Your task to perform on an android device: open app "Adobe Acrobat Reader: Edit PDF" (install if not already installed), go to login, and select forgot password Image 0: 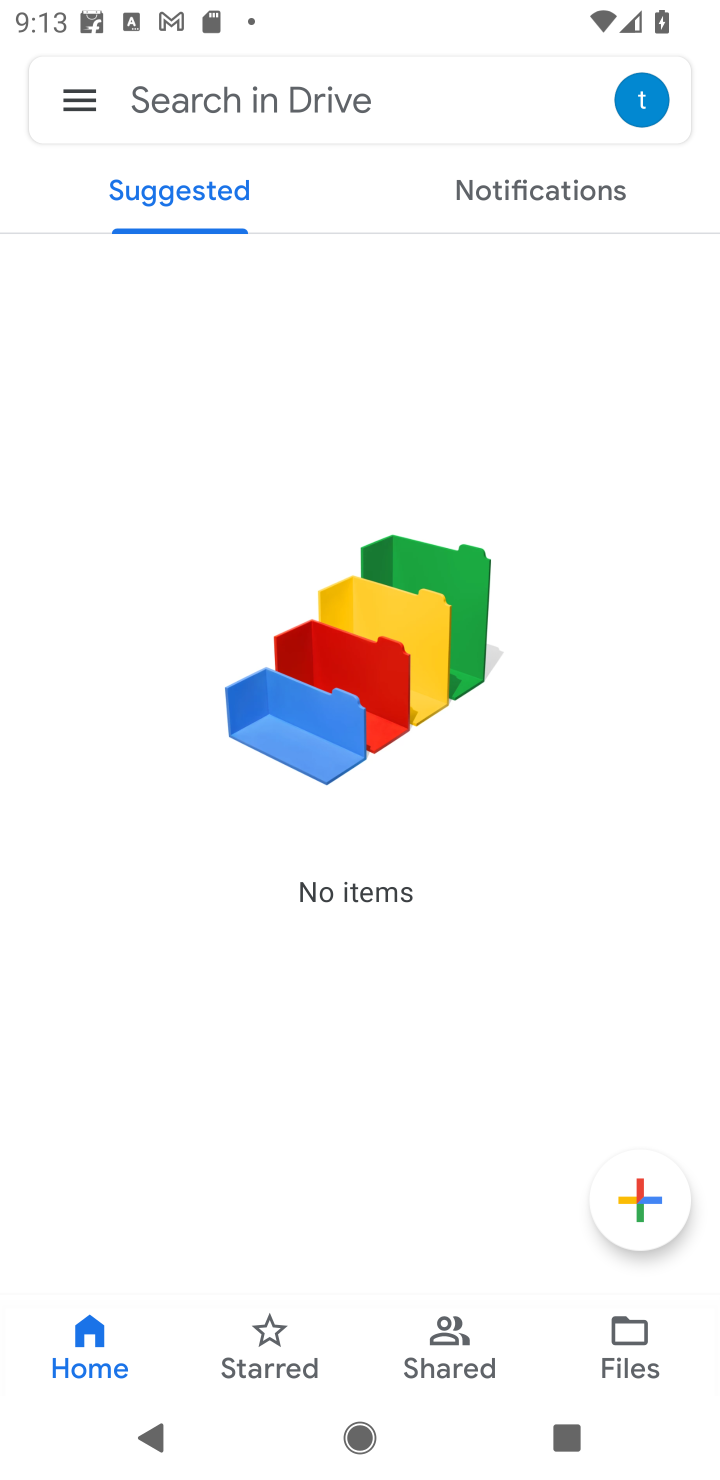
Step 0: press home button
Your task to perform on an android device: open app "Adobe Acrobat Reader: Edit PDF" (install if not already installed), go to login, and select forgot password Image 1: 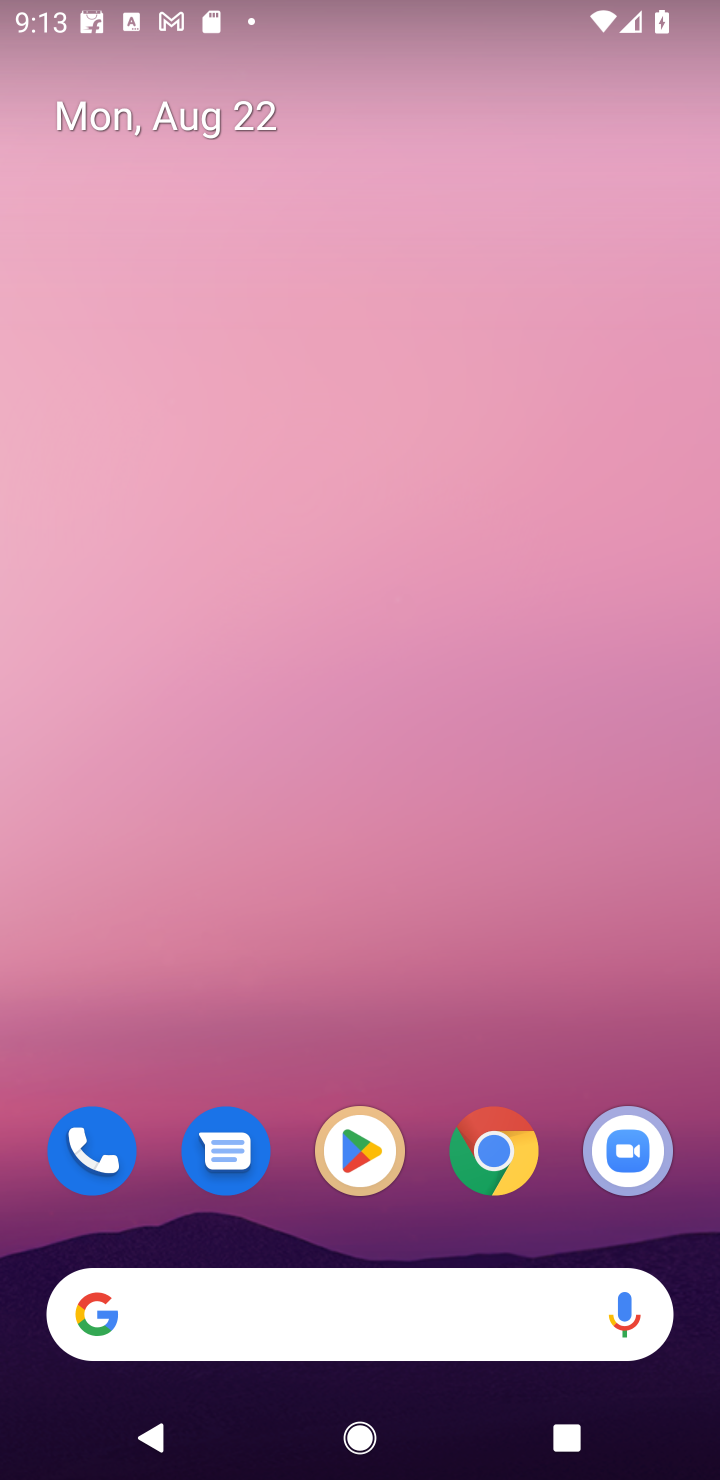
Step 1: click (366, 1155)
Your task to perform on an android device: open app "Adobe Acrobat Reader: Edit PDF" (install if not already installed), go to login, and select forgot password Image 2: 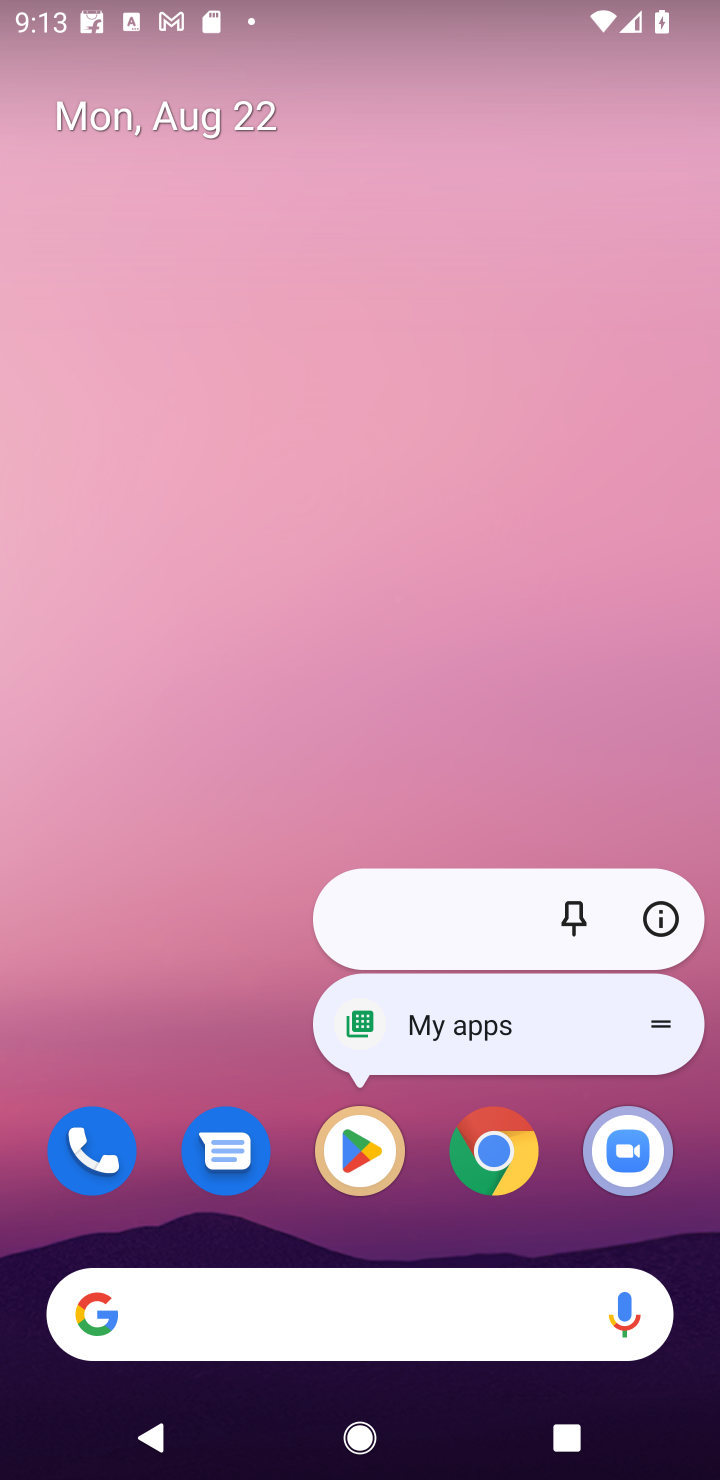
Step 2: click (366, 1157)
Your task to perform on an android device: open app "Adobe Acrobat Reader: Edit PDF" (install if not already installed), go to login, and select forgot password Image 3: 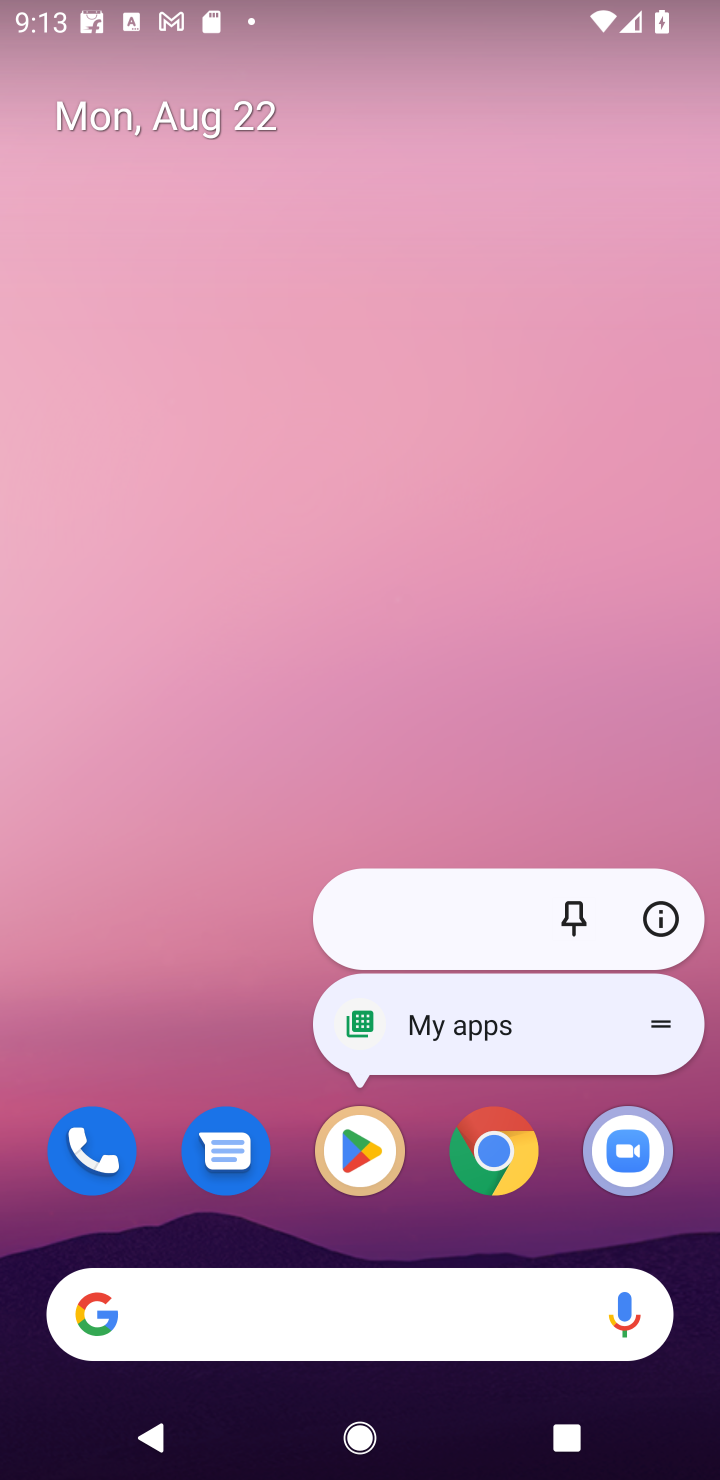
Step 3: click (362, 1148)
Your task to perform on an android device: open app "Adobe Acrobat Reader: Edit PDF" (install if not already installed), go to login, and select forgot password Image 4: 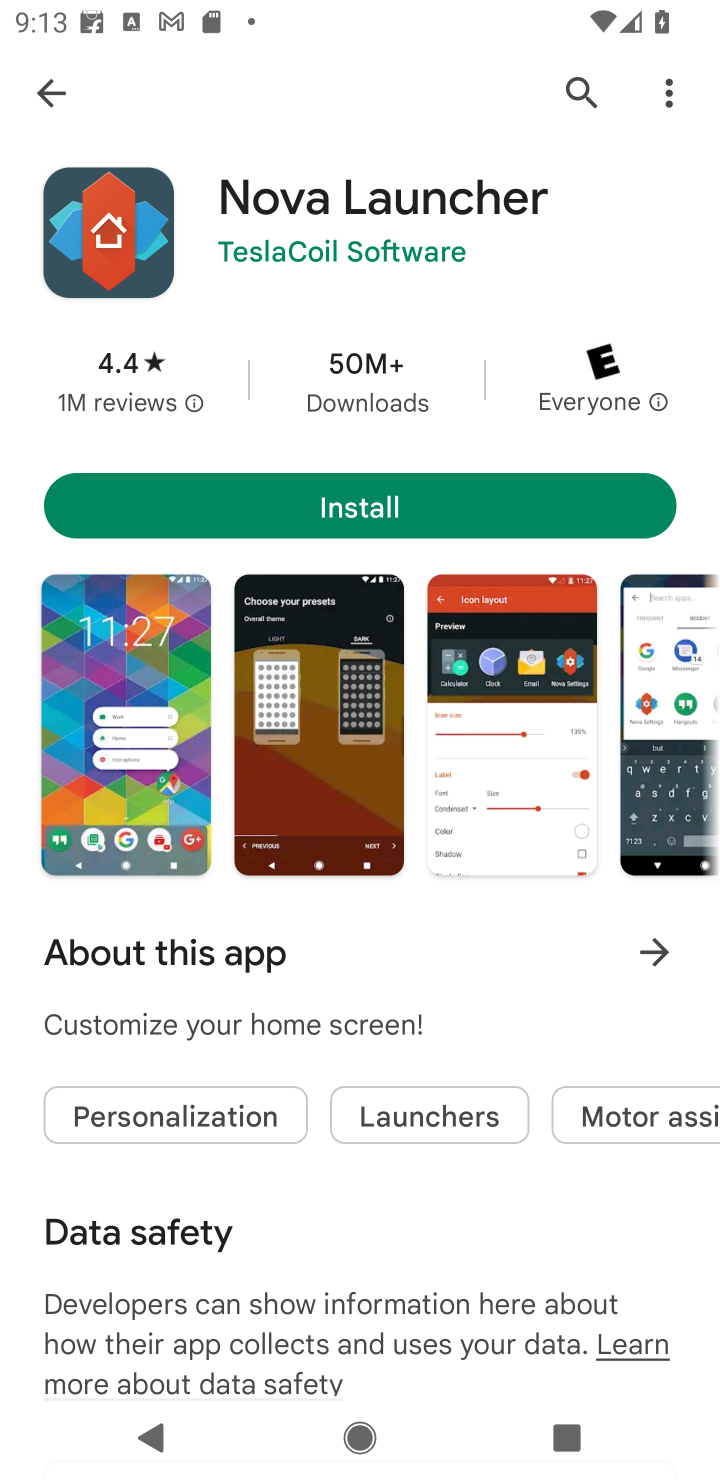
Step 4: click (573, 82)
Your task to perform on an android device: open app "Adobe Acrobat Reader: Edit PDF" (install if not already installed), go to login, and select forgot password Image 5: 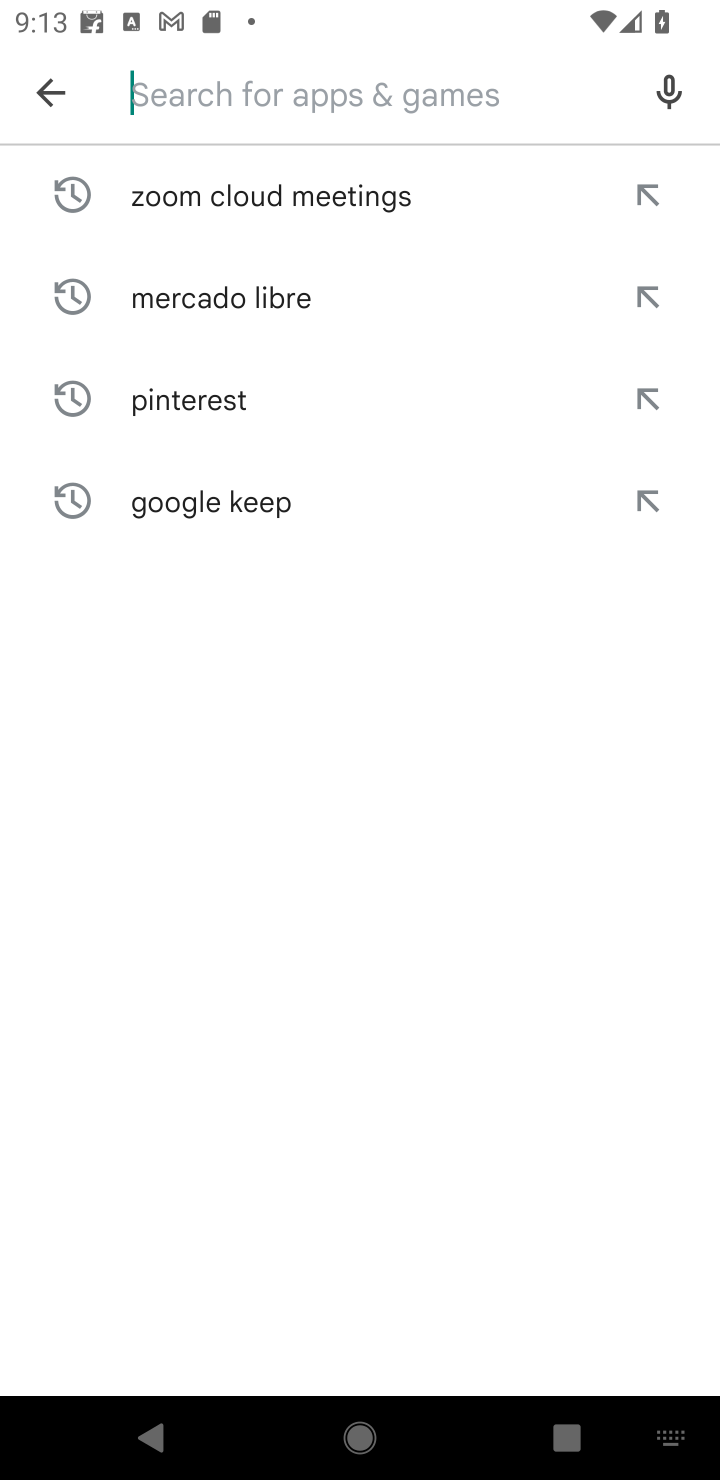
Step 5: type "Adobe Acrobat Reader: Edit PDF"
Your task to perform on an android device: open app "Adobe Acrobat Reader: Edit PDF" (install if not already installed), go to login, and select forgot password Image 6: 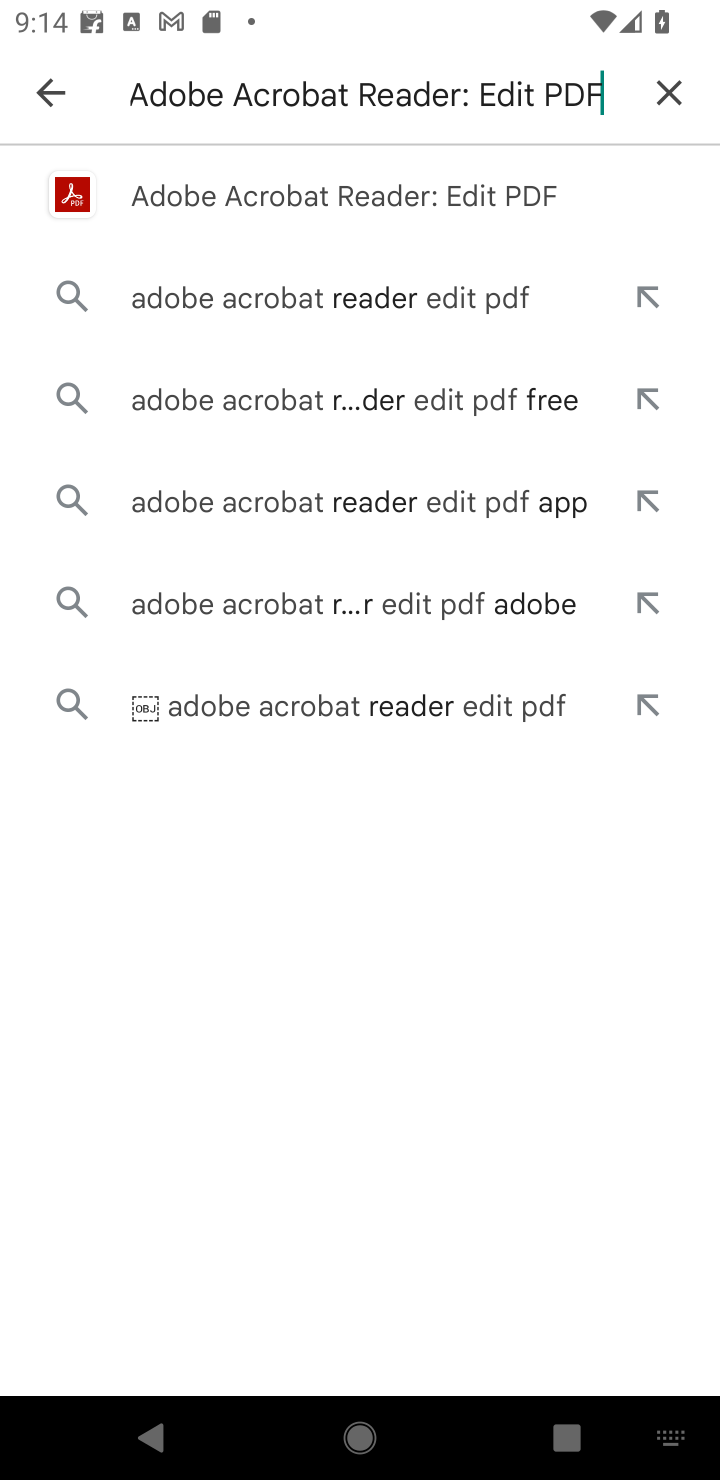
Step 6: click (374, 191)
Your task to perform on an android device: open app "Adobe Acrobat Reader: Edit PDF" (install if not already installed), go to login, and select forgot password Image 7: 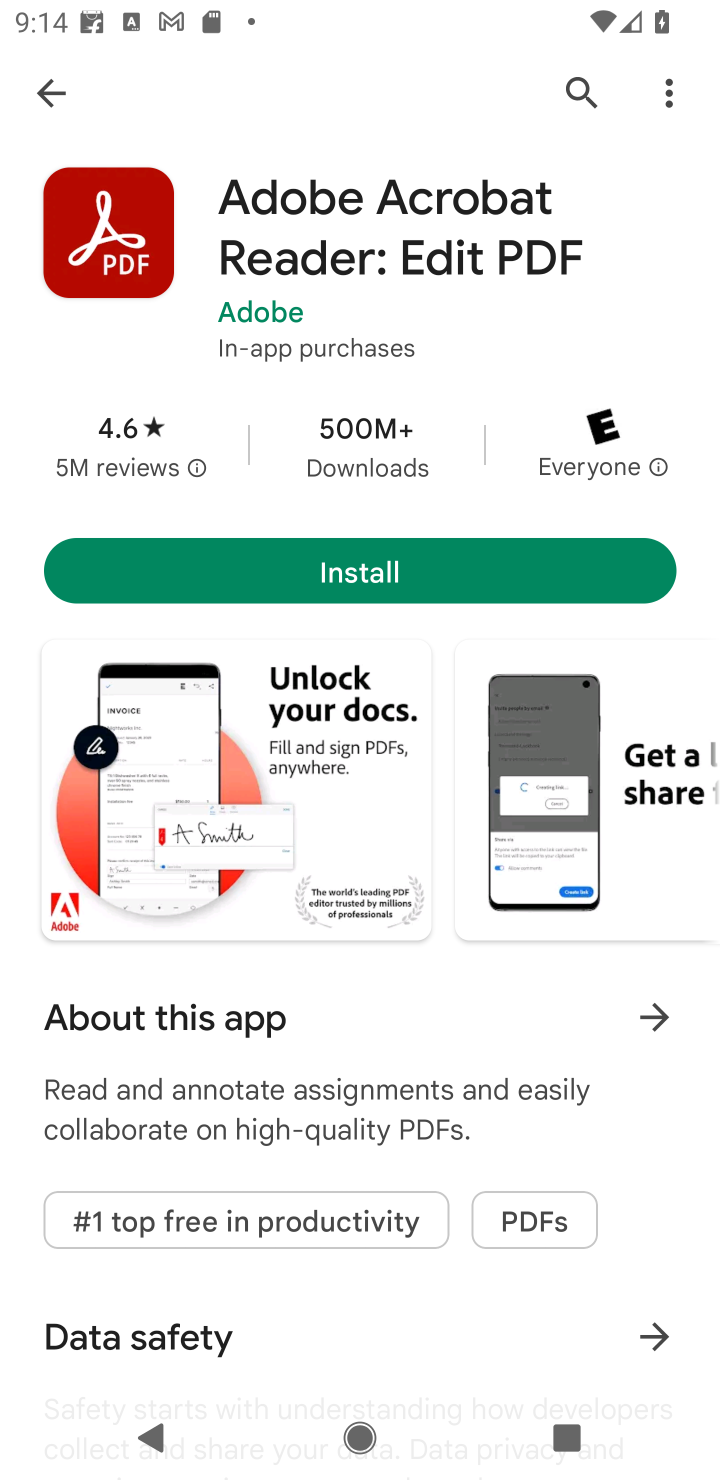
Step 7: click (377, 578)
Your task to perform on an android device: open app "Adobe Acrobat Reader: Edit PDF" (install if not already installed), go to login, and select forgot password Image 8: 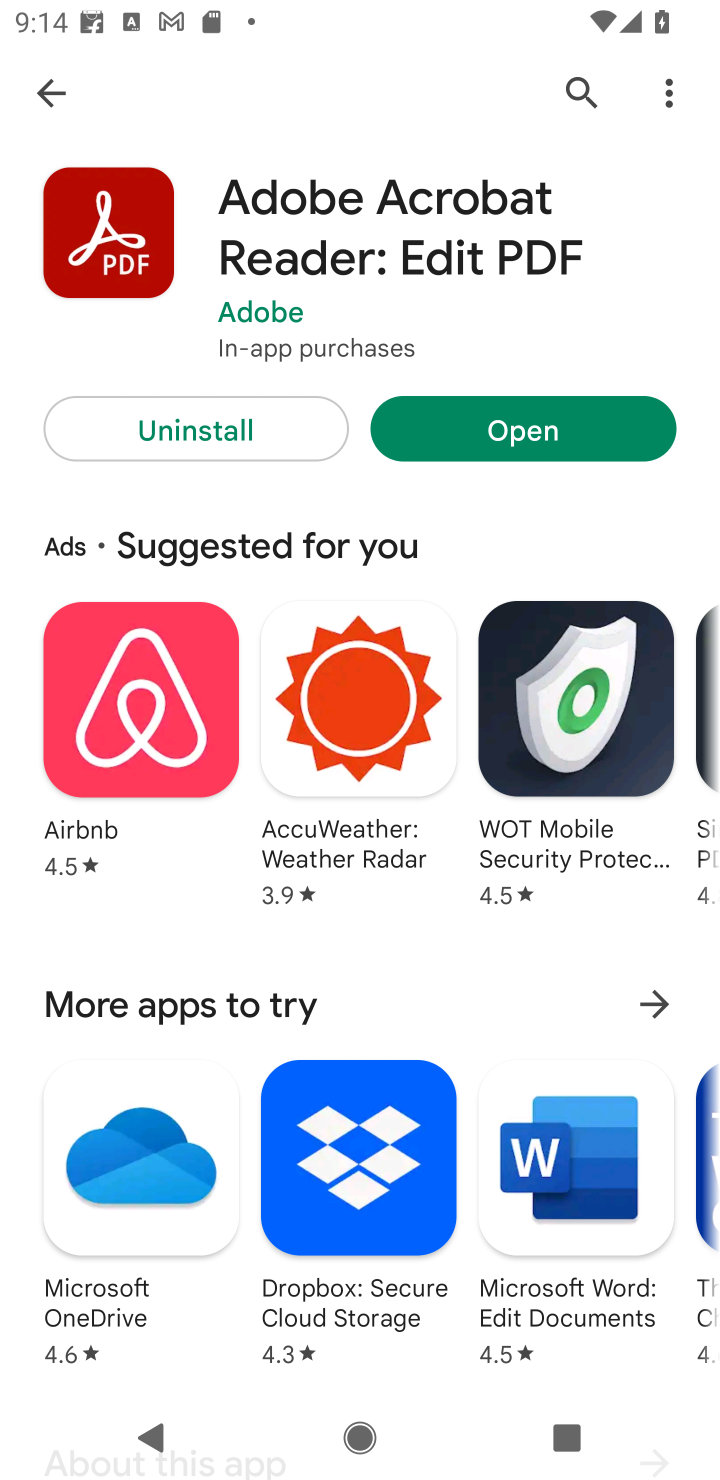
Step 8: click (598, 427)
Your task to perform on an android device: open app "Adobe Acrobat Reader: Edit PDF" (install if not already installed), go to login, and select forgot password Image 9: 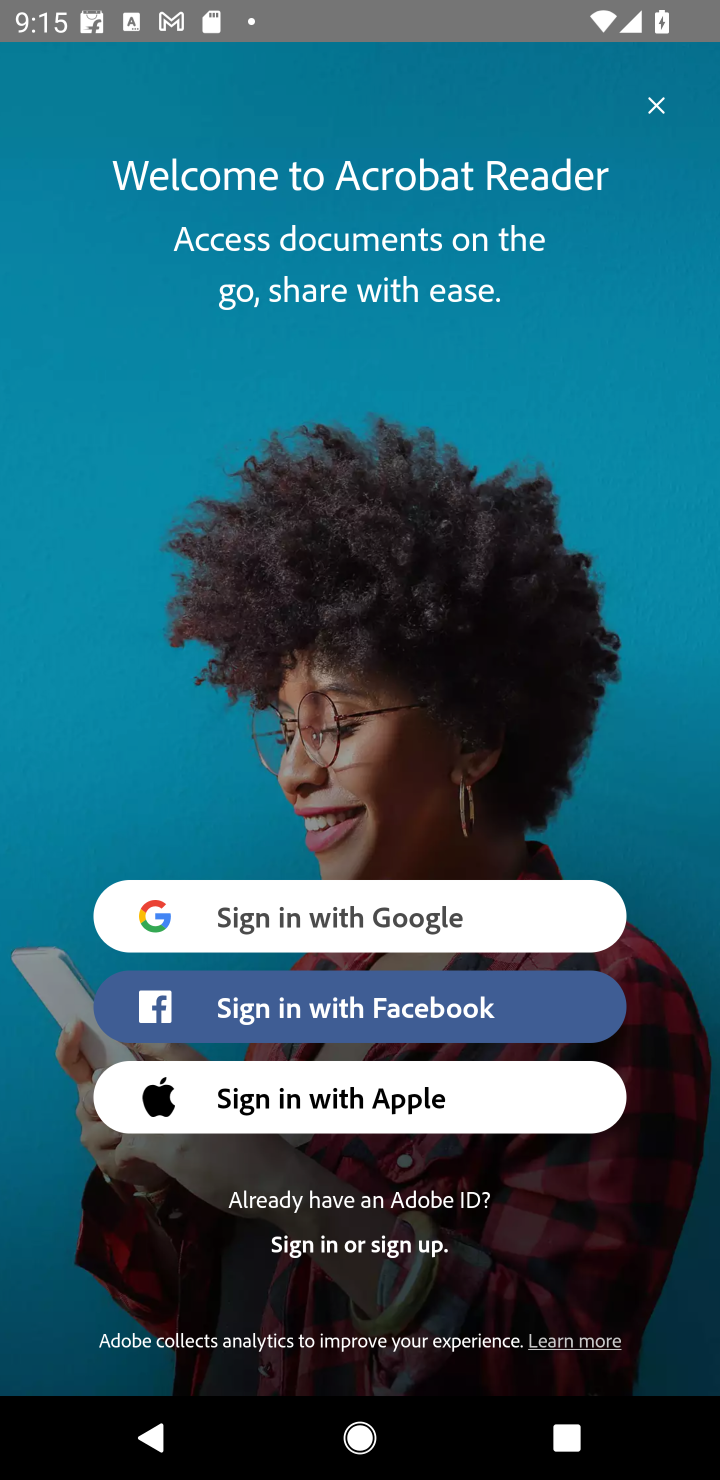
Step 9: click (403, 1242)
Your task to perform on an android device: open app "Adobe Acrobat Reader: Edit PDF" (install if not already installed), go to login, and select forgot password Image 10: 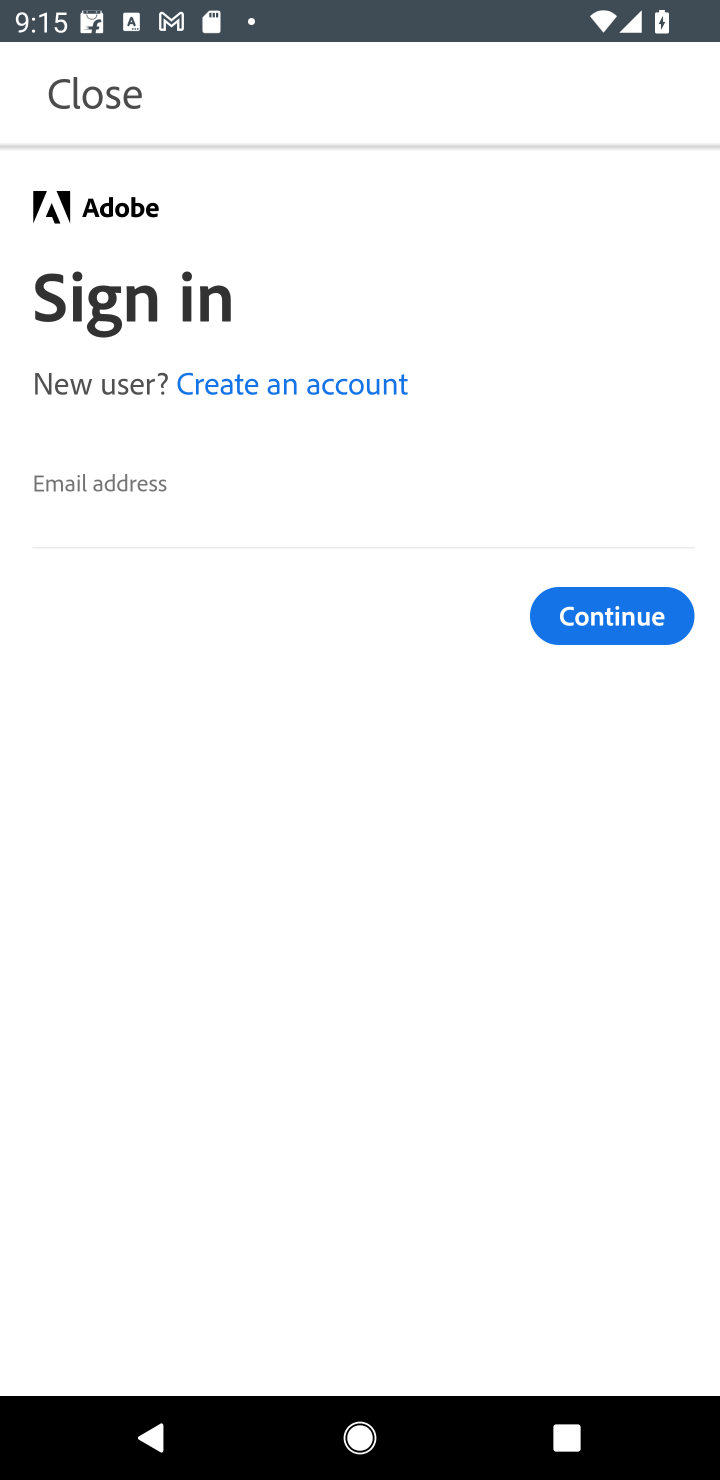
Step 10: click (89, 494)
Your task to perform on an android device: open app "Adobe Acrobat Reader: Edit PDF" (install if not already installed), go to login, and select forgot password Image 11: 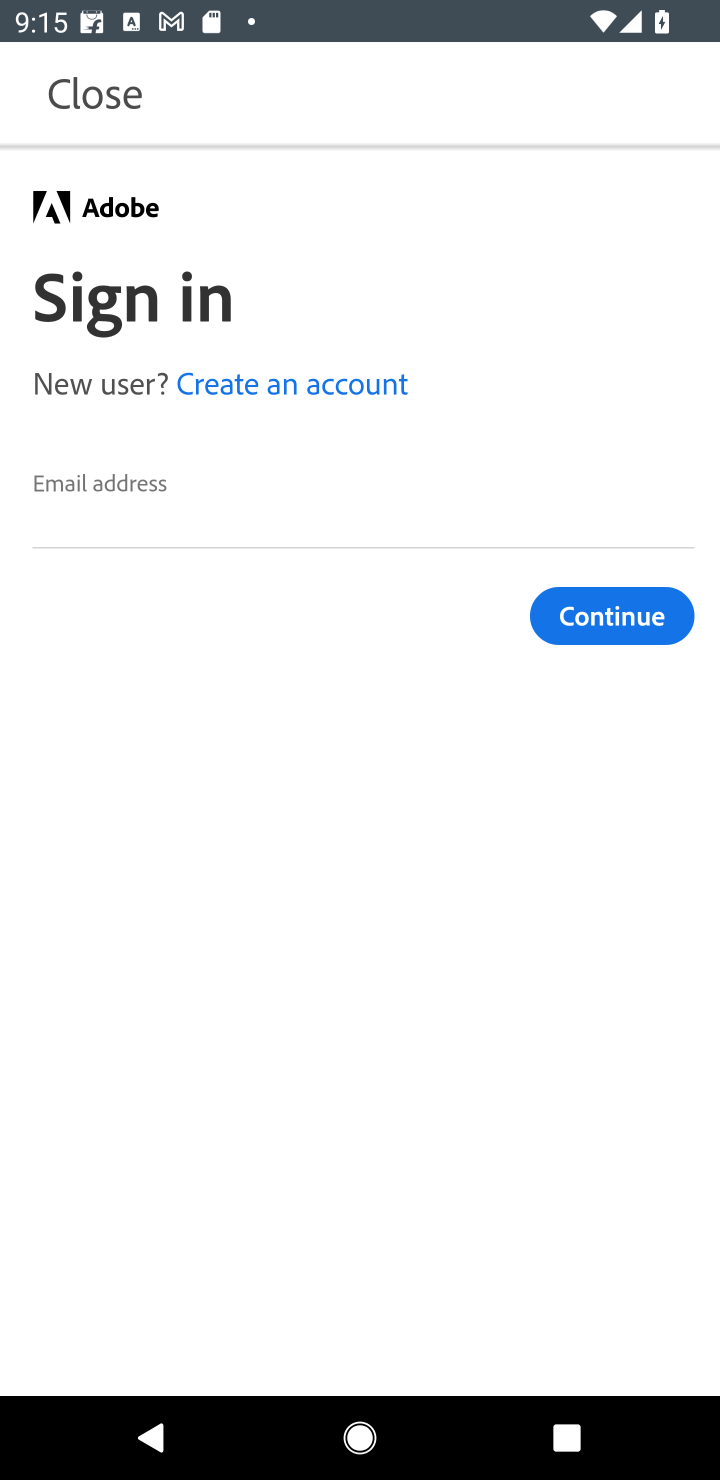
Step 11: click (70, 500)
Your task to perform on an android device: open app "Adobe Acrobat Reader: Edit PDF" (install if not already installed), go to login, and select forgot password Image 12: 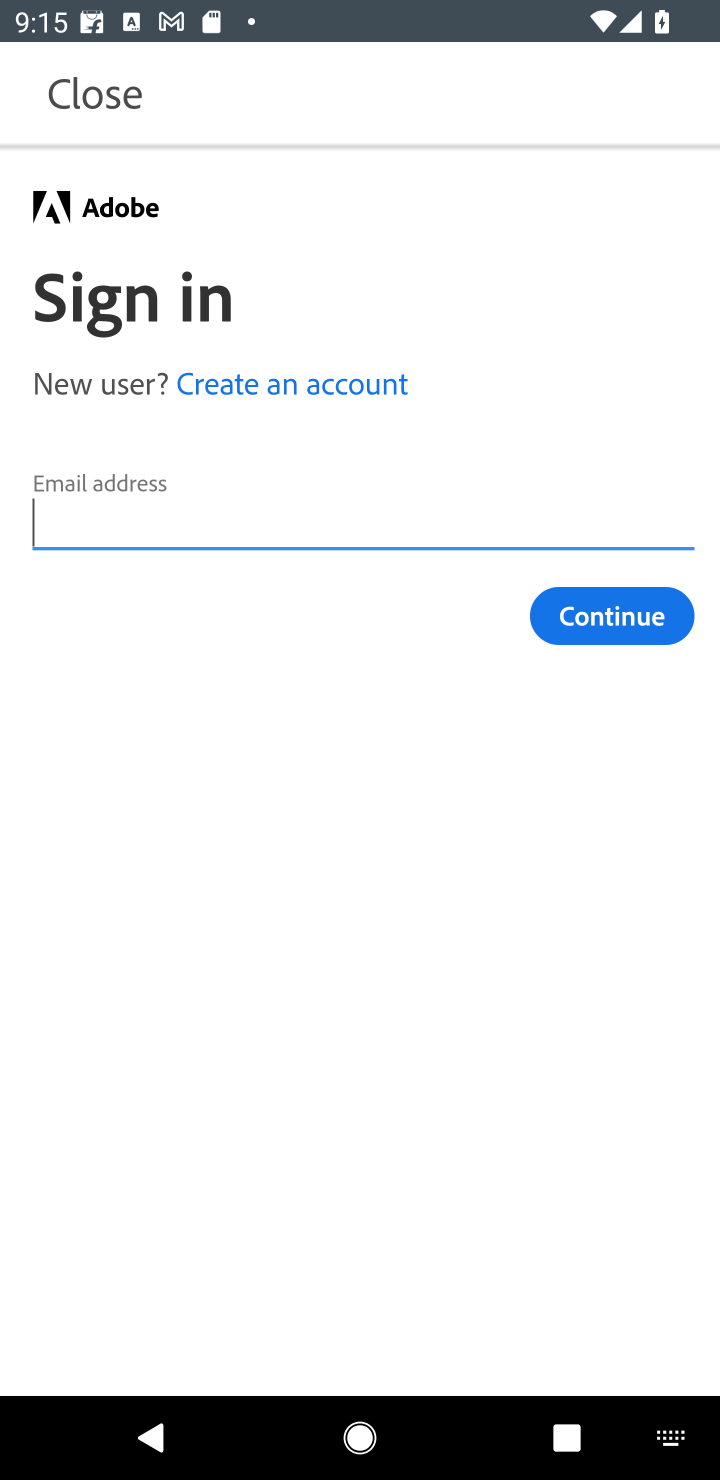
Step 12: click (198, 702)
Your task to perform on an android device: open app "Adobe Acrobat Reader: Edit PDF" (install if not already installed), go to login, and select forgot password Image 13: 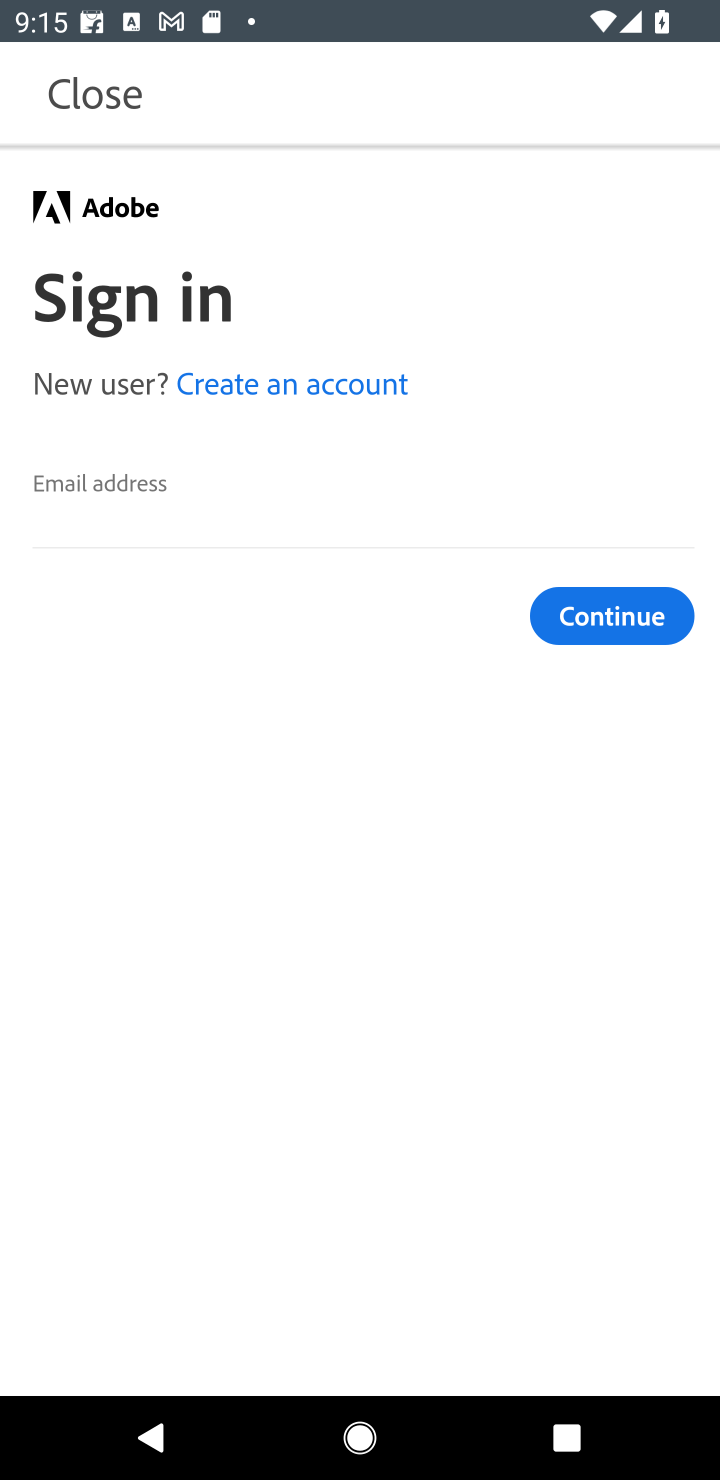
Step 13: task complete